Your task to perform on an android device: toggle wifi Image 0: 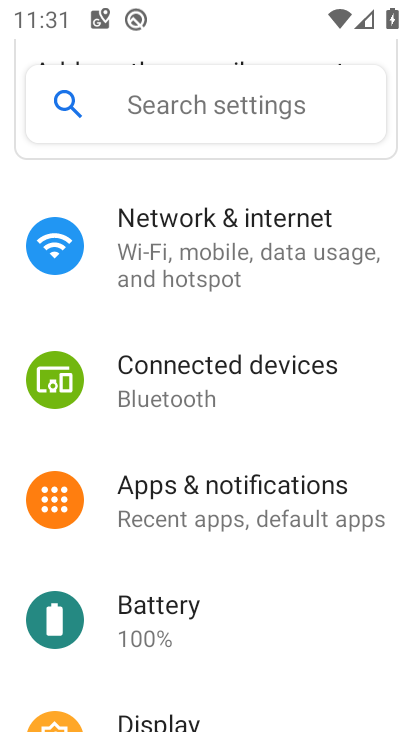
Step 0: click (250, 260)
Your task to perform on an android device: toggle wifi Image 1: 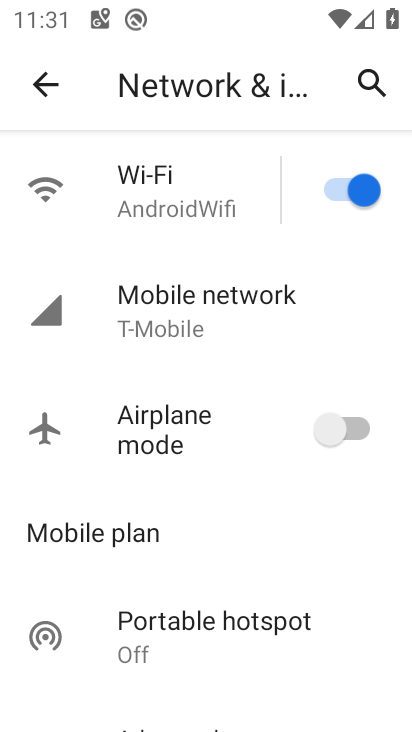
Step 1: click (323, 196)
Your task to perform on an android device: toggle wifi Image 2: 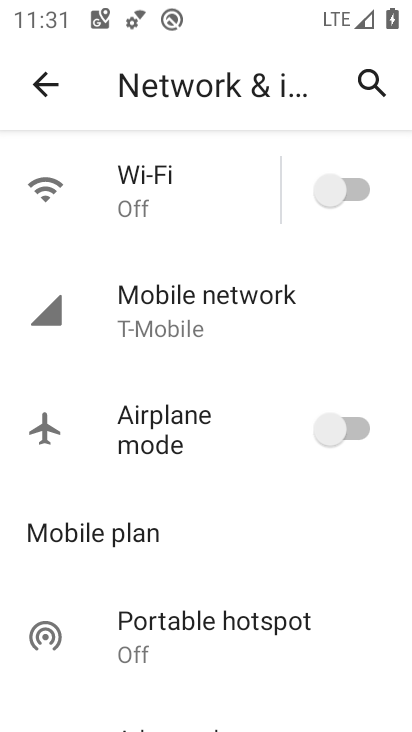
Step 2: task complete